Your task to perform on an android device: Open internet settings Image 0: 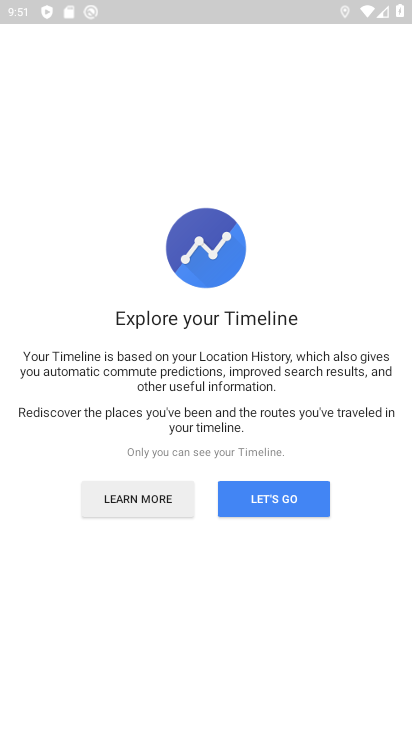
Step 0: press home button
Your task to perform on an android device: Open internet settings Image 1: 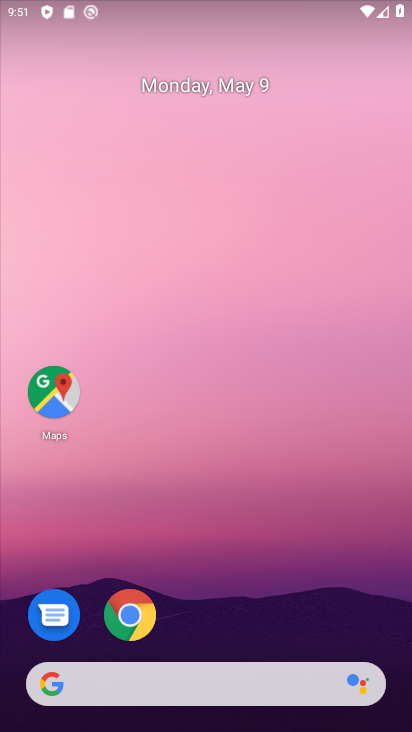
Step 1: drag from (188, 584) to (180, 216)
Your task to perform on an android device: Open internet settings Image 2: 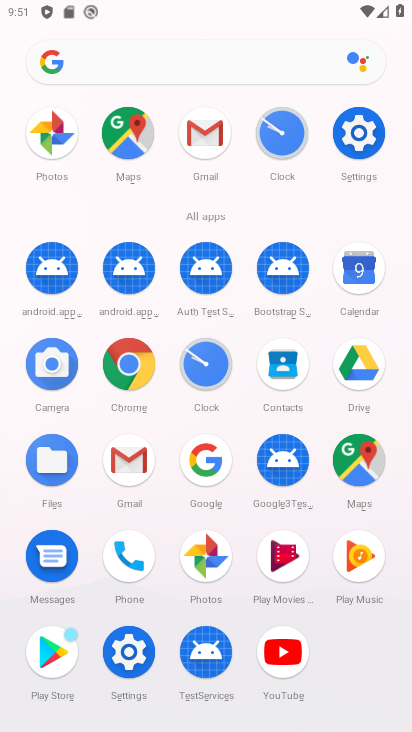
Step 2: click (353, 137)
Your task to perform on an android device: Open internet settings Image 3: 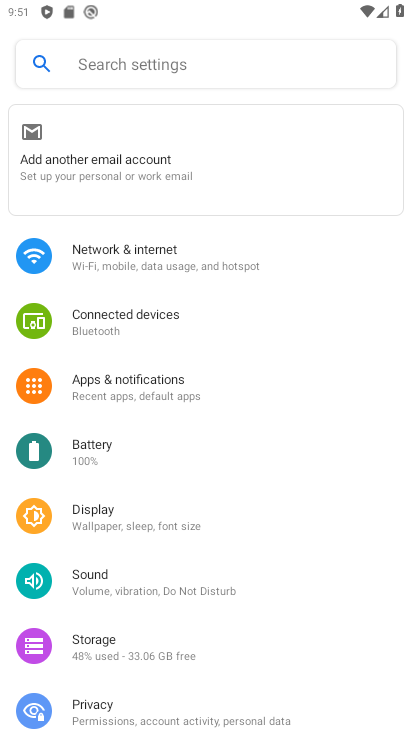
Step 3: click (168, 257)
Your task to perform on an android device: Open internet settings Image 4: 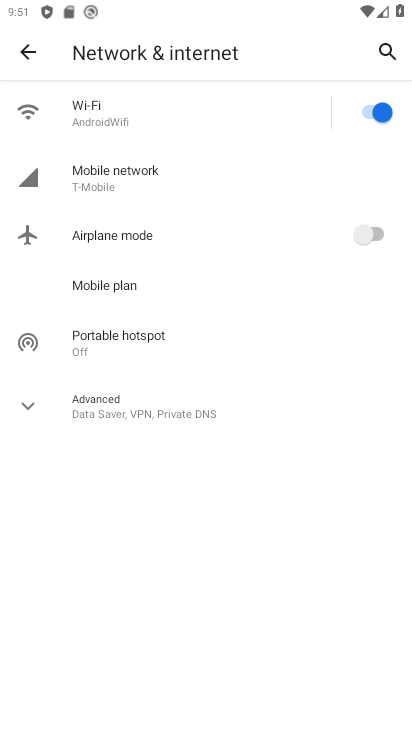
Step 4: task complete